Your task to perform on an android device: toggle priority inbox in the gmail app Image 0: 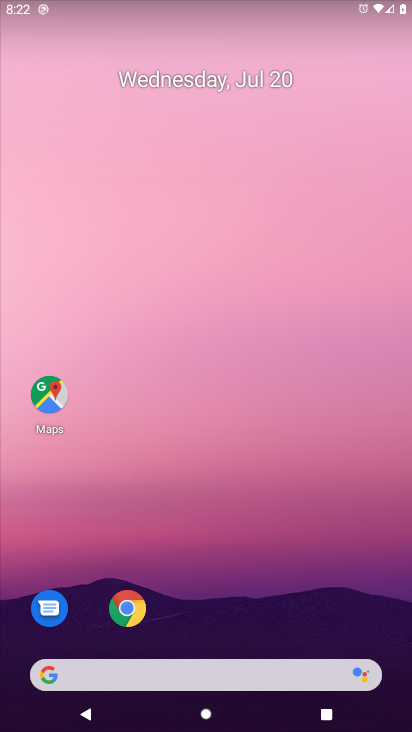
Step 0: drag from (264, 627) to (304, 138)
Your task to perform on an android device: toggle priority inbox in the gmail app Image 1: 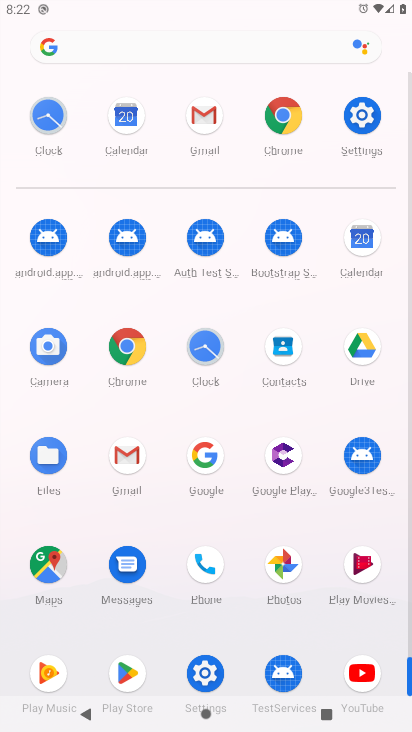
Step 1: click (130, 478)
Your task to perform on an android device: toggle priority inbox in the gmail app Image 2: 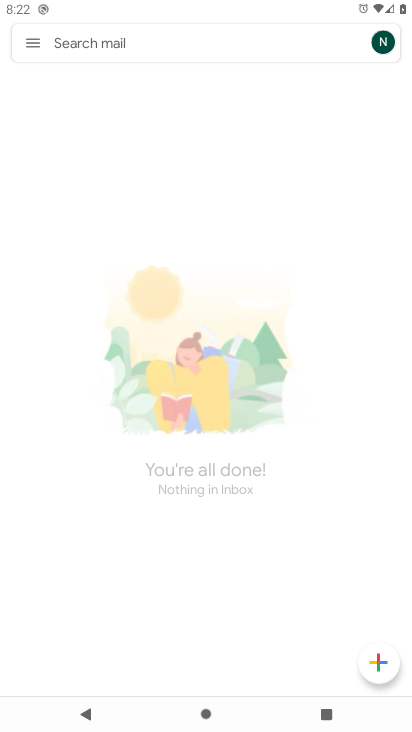
Step 2: click (39, 50)
Your task to perform on an android device: toggle priority inbox in the gmail app Image 3: 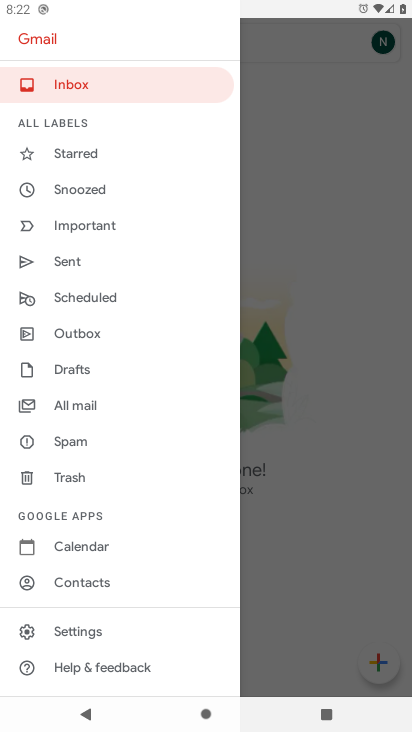
Step 3: click (82, 631)
Your task to perform on an android device: toggle priority inbox in the gmail app Image 4: 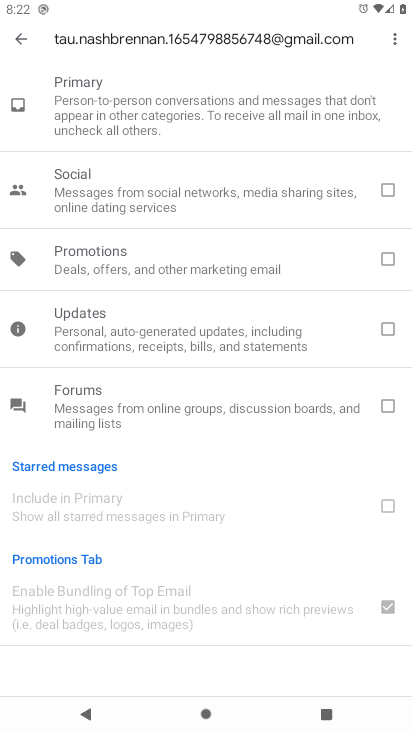
Step 4: click (15, 43)
Your task to perform on an android device: toggle priority inbox in the gmail app Image 5: 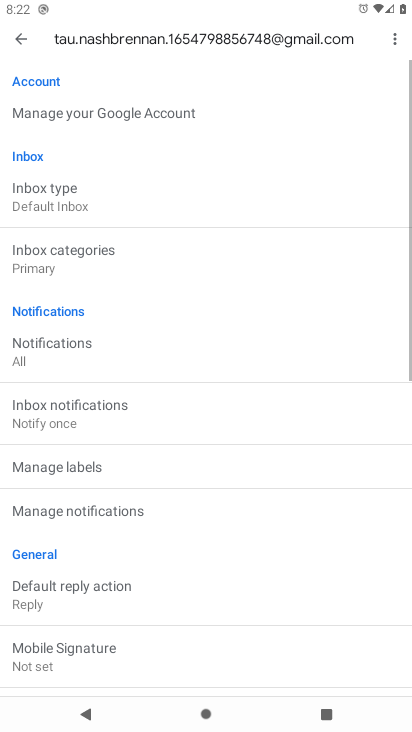
Step 5: click (88, 203)
Your task to perform on an android device: toggle priority inbox in the gmail app Image 6: 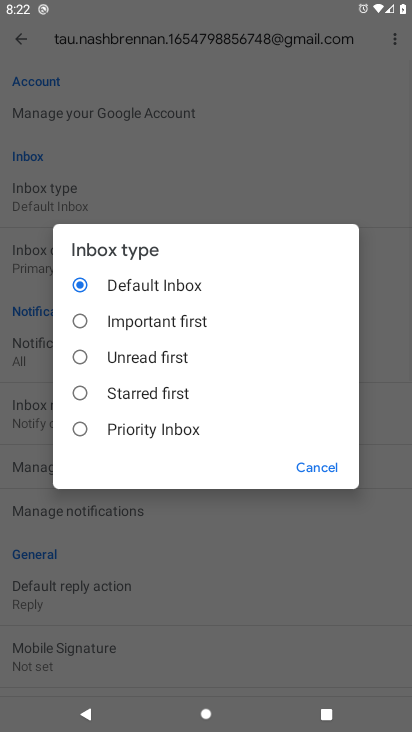
Step 6: click (93, 430)
Your task to perform on an android device: toggle priority inbox in the gmail app Image 7: 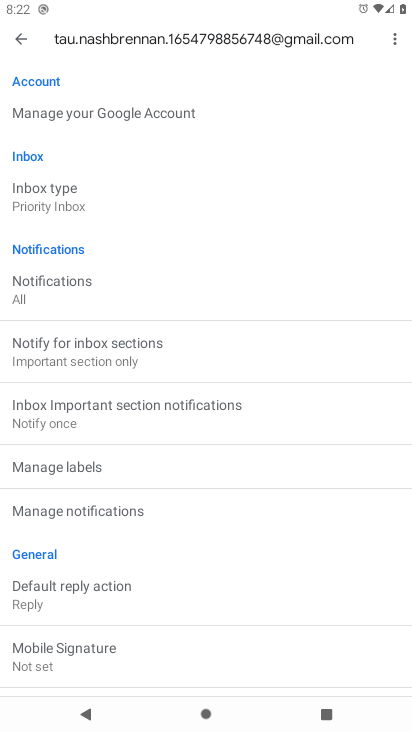
Step 7: task complete